Your task to perform on an android device: change the clock display to digital Image 0: 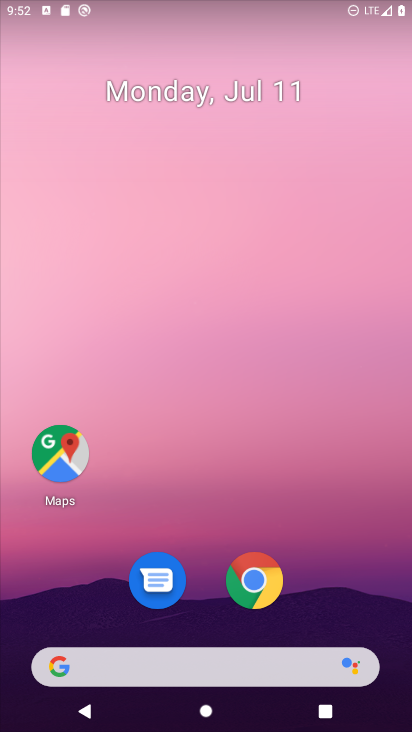
Step 0: drag from (267, 486) to (267, 33)
Your task to perform on an android device: change the clock display to digital Image 1: 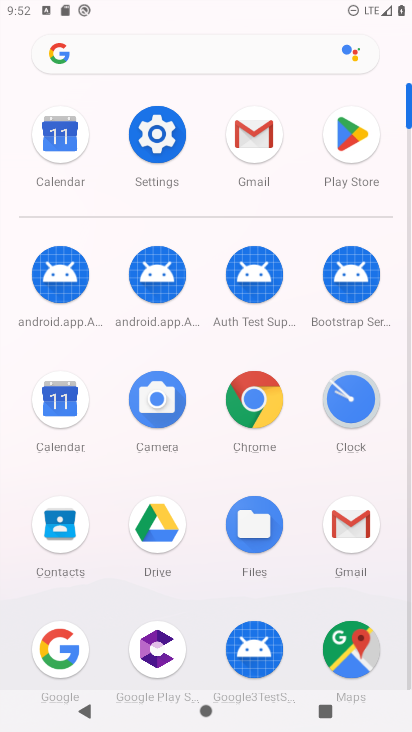
Step 1: click (357, 393)
Your task to perform on an android device: change the clock display to digital Image 2: 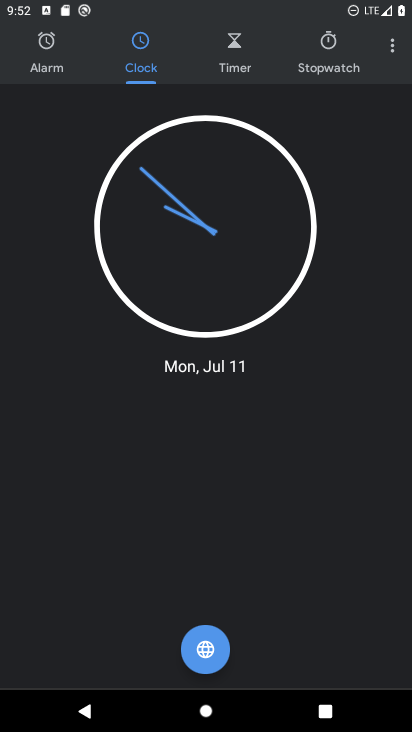
Step 2: click (391, 53)
Your task to perform on an android device: change the clock display to digital Image 3: 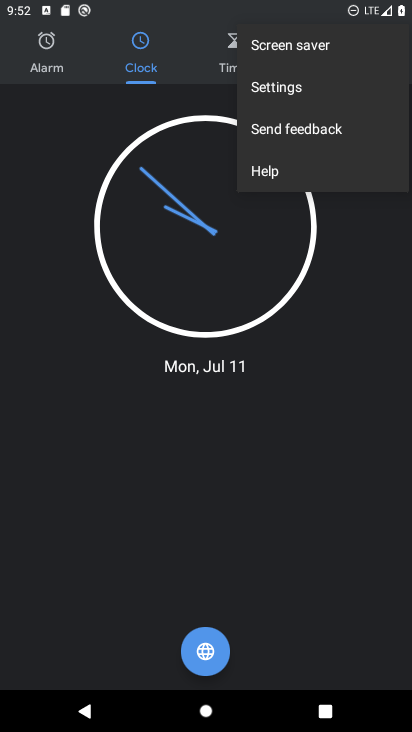
Step 3: click (321, 90)
Your task to perform on an android device: change the clock display to digital Image 4: 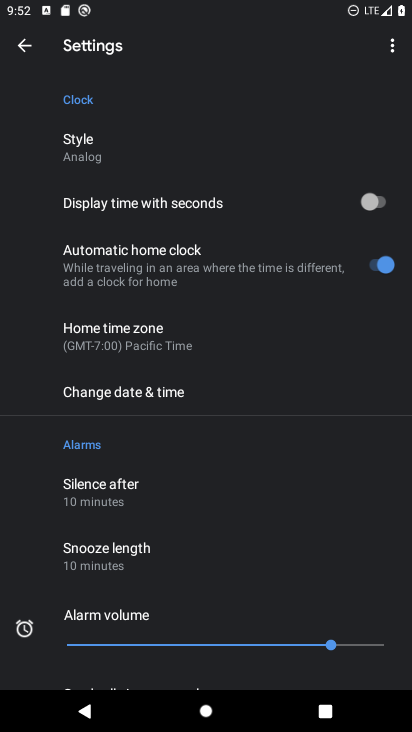
Step 4: click (89, 141)
Your task to perform on an android device: change the clock display to digital Image 5: 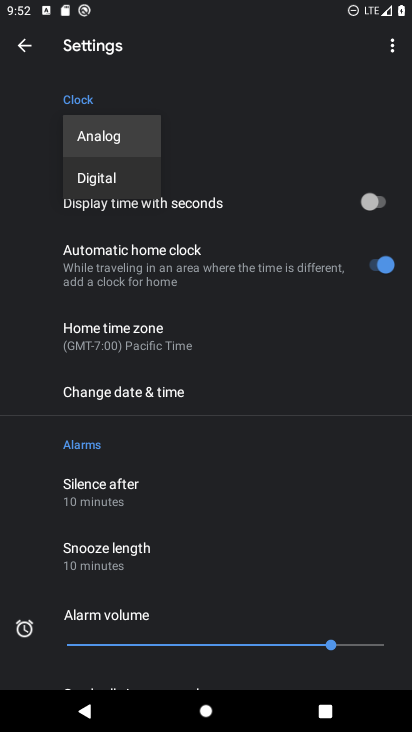
Step 5: click (105, 171)
Your task to perform on an android device: change the clock display to digital Image 6: 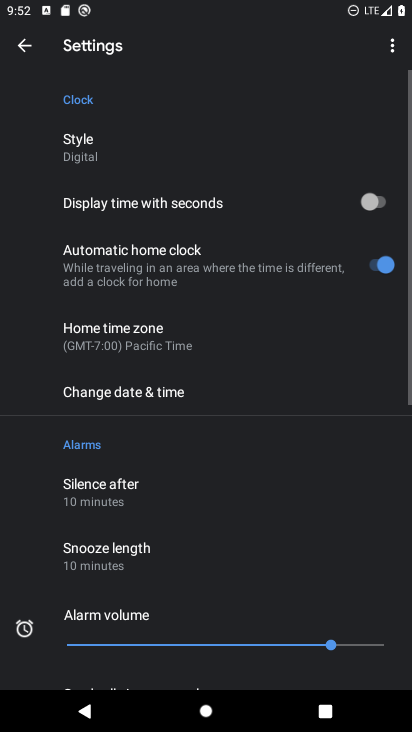
Step 6: click (31, 51)
Your task to perform on an android device: change the clock display to digital Image 7: 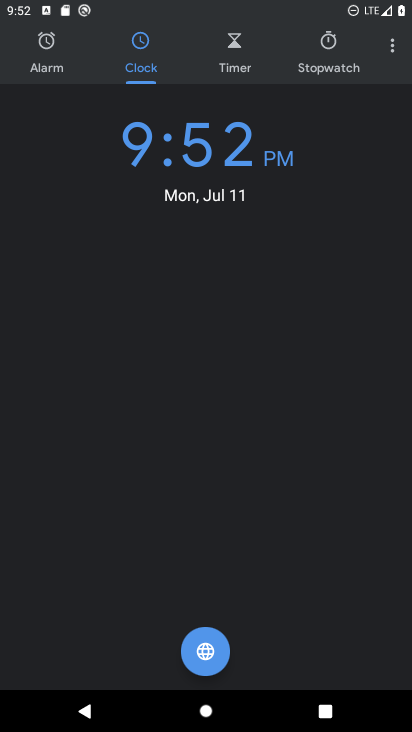
Step 7: task complete